Your task to perform on an android device: Show me popular games on the Play Store Image 0: 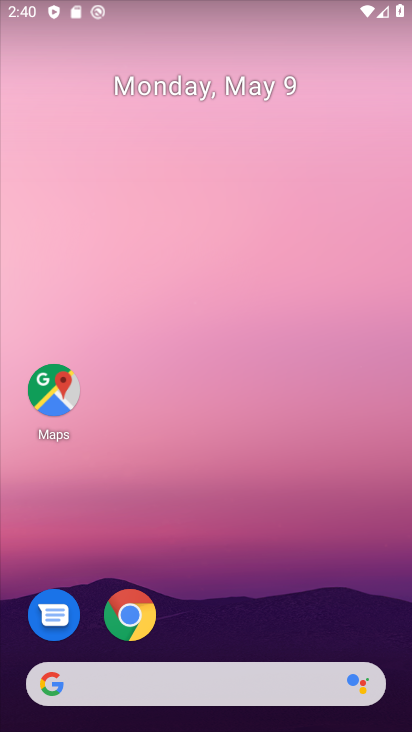
Step 0: drag from (231, 378) to (231, 248)
Your task to perform on an android device: Show me popular games on the Play Store Image 1: 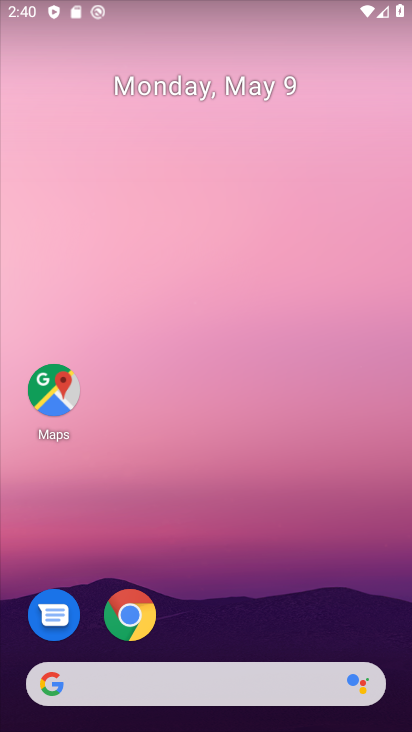
Step 1: drag from (208, 593) to (241, 197)
Your task to perform on an android device: Show me popular games on the Play Store Image 2: 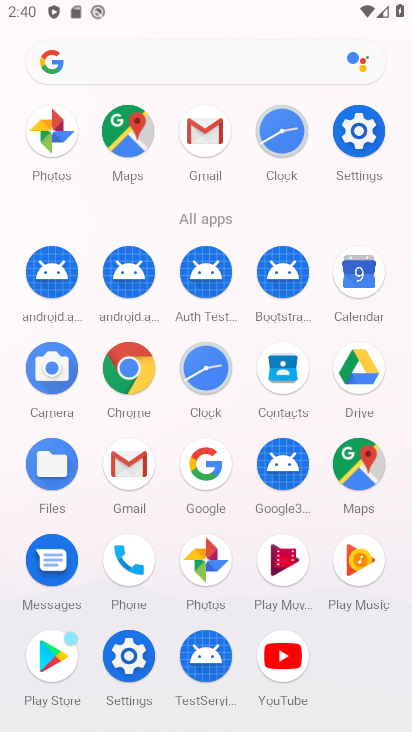
Step 2: click (52, 645)
Your task to perform on an android device: Show me popular games on the Play Store Image 3: 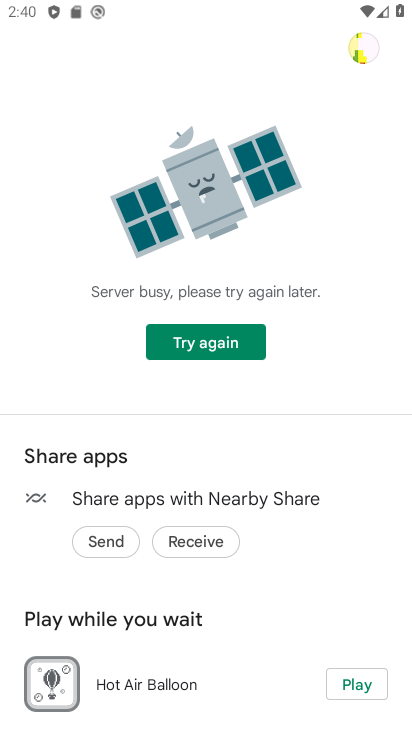
Step 3: click (225, 341)
Your task to perform on an android device: Show me popular games on the Play Store Image 4: 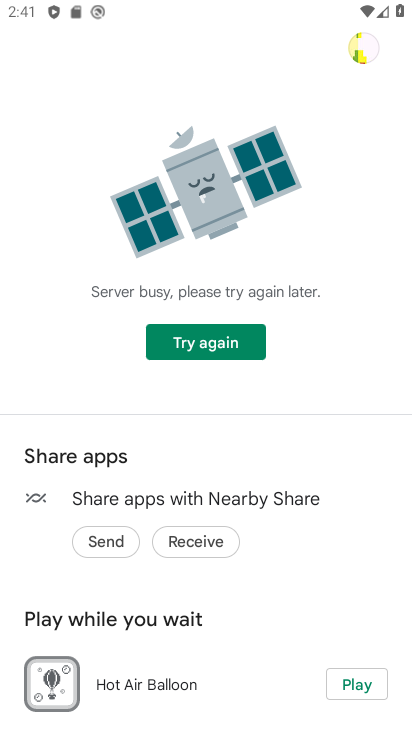
Step 4: task complete